Your task to perform on an android device: delete location history Image 0: 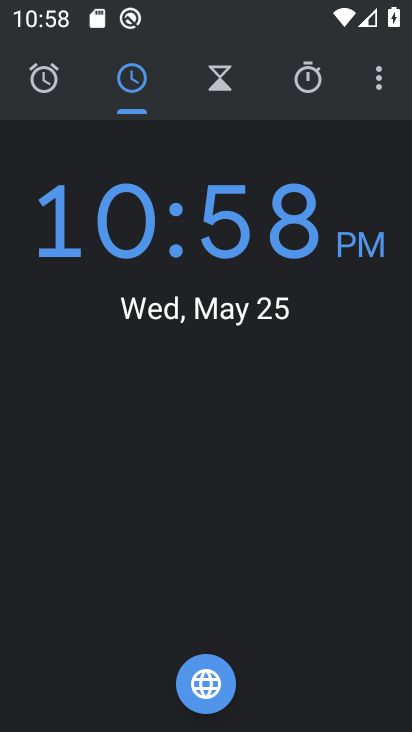
Step 0: press home button
Your task to perform on an android device: delete location history Image 1: 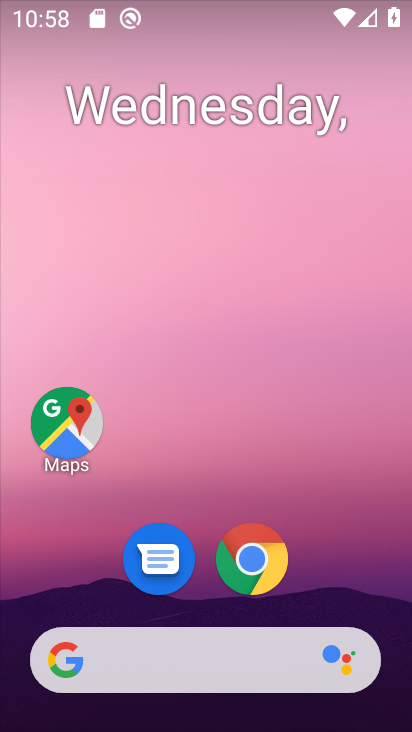
Step 1: drag from (269, 699) to (252, 50)
Your task to perform on an android device: delete location history Image 2: 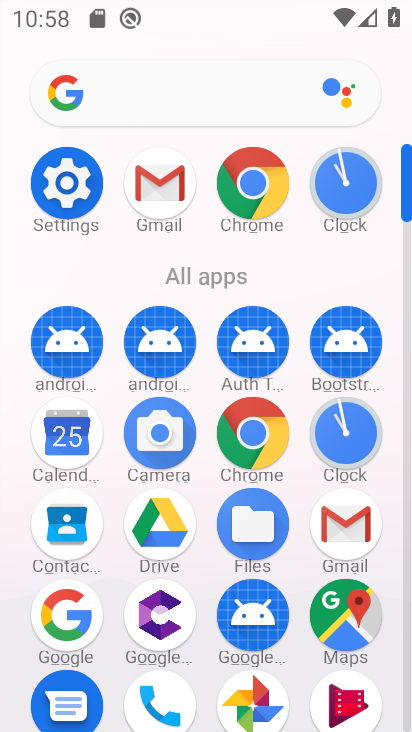
Step 2: click (75, 185)
Your task to perform on an android device: delete location history Image 3: 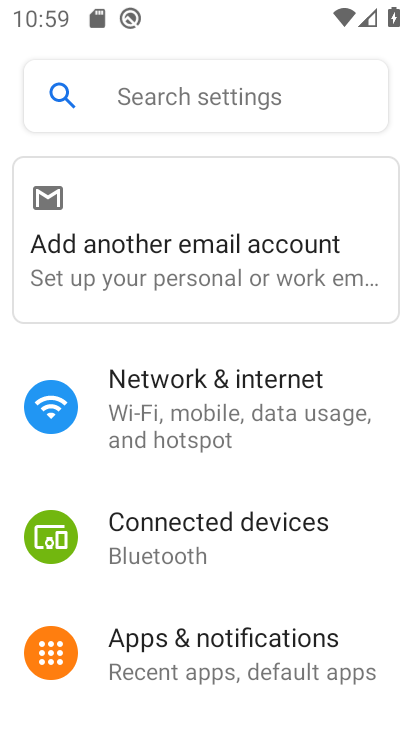
Step 3: click (182, 98)
Your task to perform on an android device: delete location history Image 4: 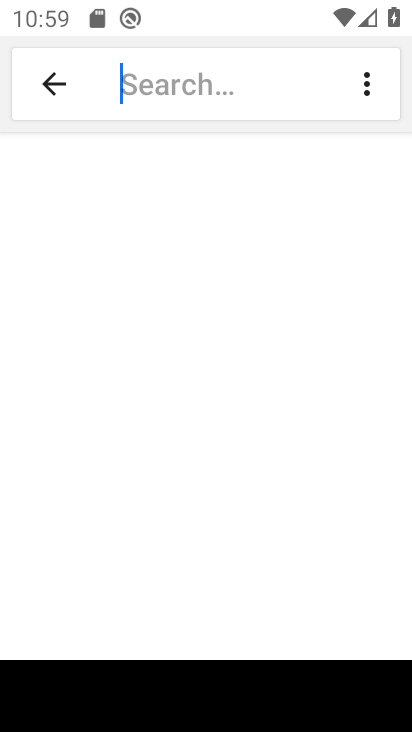
Step 4: drag from (371, 696) to (344, 542)
Your task to perform on an android device: delete location history Image 5: 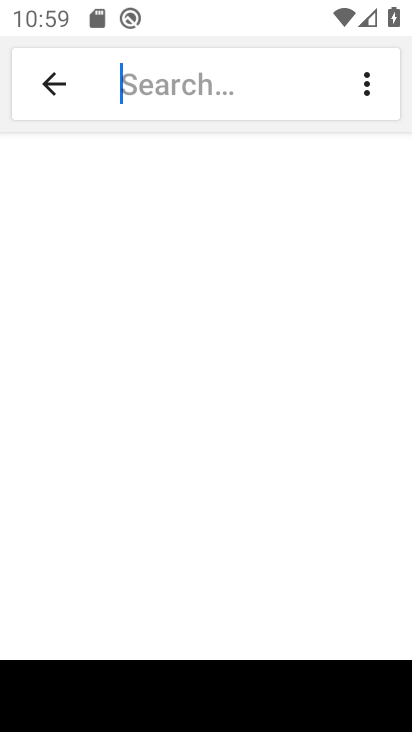
Step 5: drag from (380, 710) to (352, 553)
Your task to perform on an android device: delete location history Image 6: 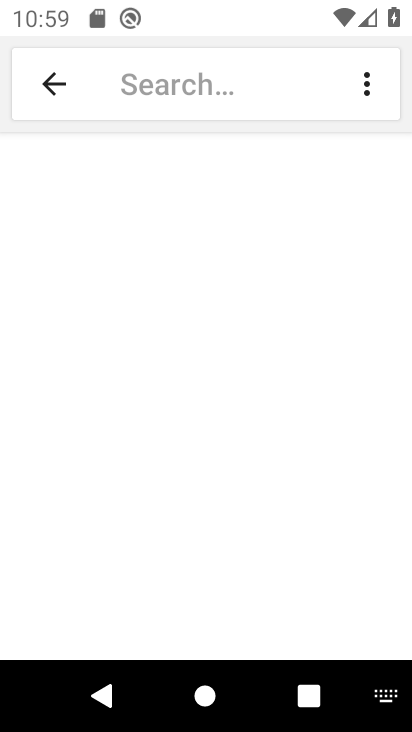
Step 6: click (383, 693)
Your task to perform on an android device: delete location history Image 7: 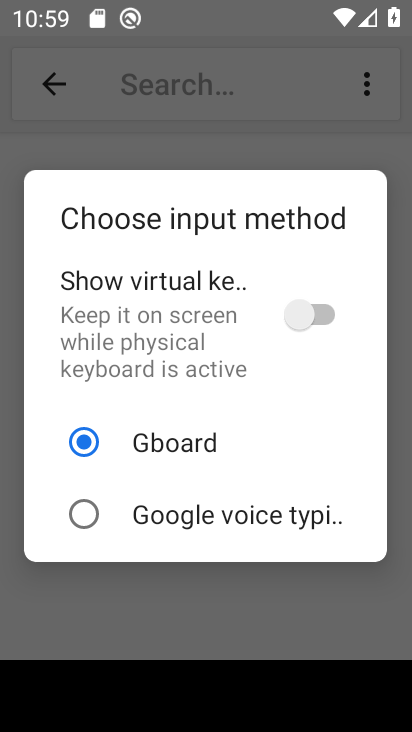
Step 7: click (329, 318)
Your task to perform on an android device: delete location history Image 8: 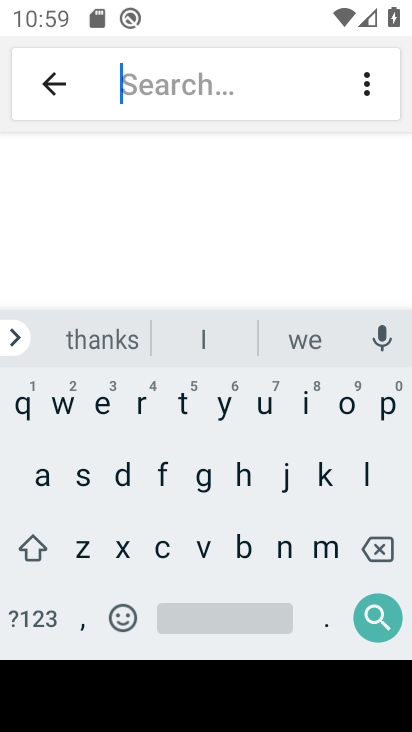
Step 8: click (377, 466)
Your task to perform on an android device: delete location history Image 9: 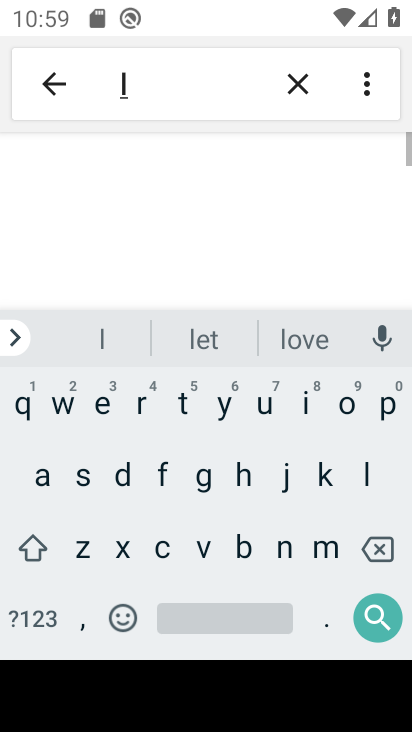
Step 9: click (341, 408)
Your task to perform on an android device: delete location history Image 10: 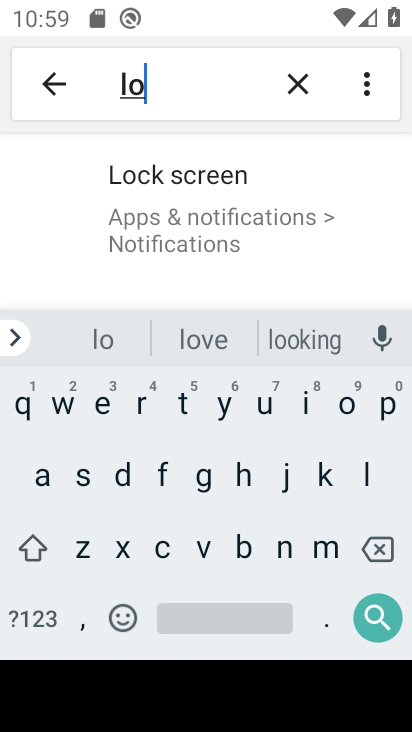
Step 10: press back button
Your task to perform on an android device: delete location history Image 11: 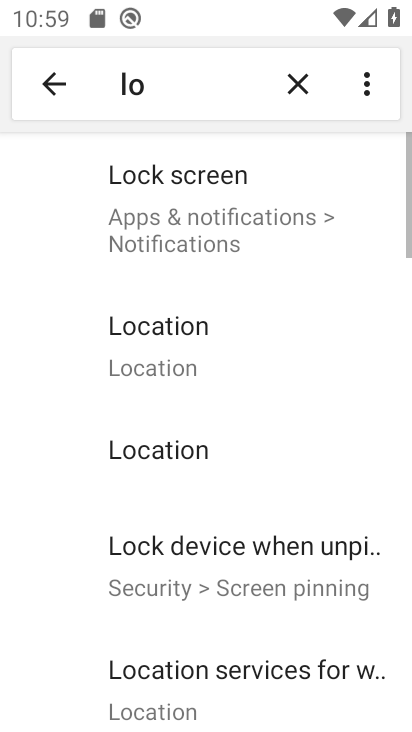
Step 11: click (177, 359)
Your task to perform on an android device: delete location history Image 12: 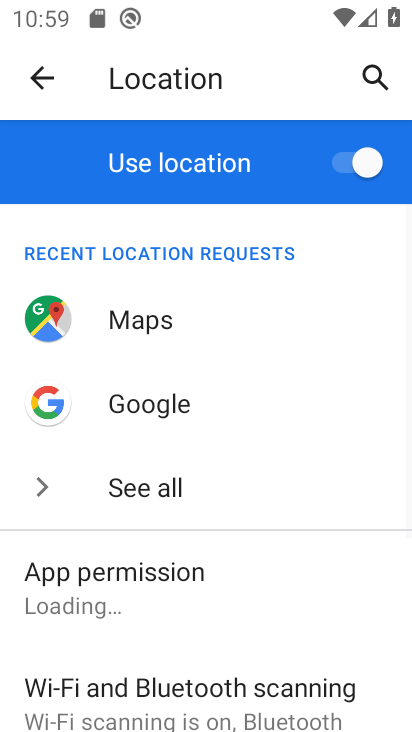
Step 12: drag from (48, 615) to (144, 311)
Your task to perform on an android device: delete location history Image 13: 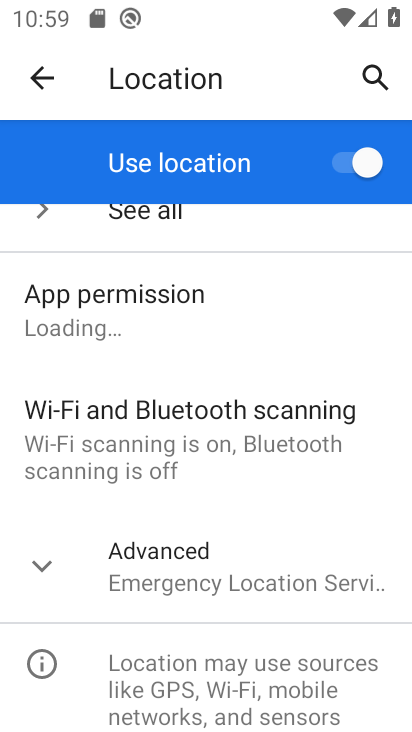
Step 13: click (59, 560)
Your task to perform on an android device: delete location history Image 14: 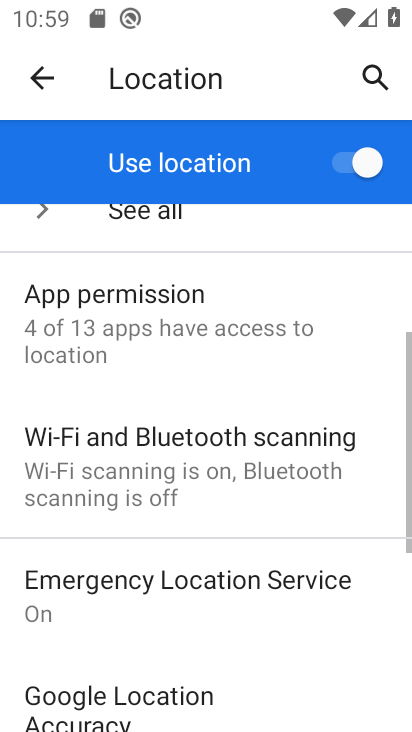
Step 14: drag from (165, 569) to (192, 349)
Your task to perform on an android device: delete location history Image 15: 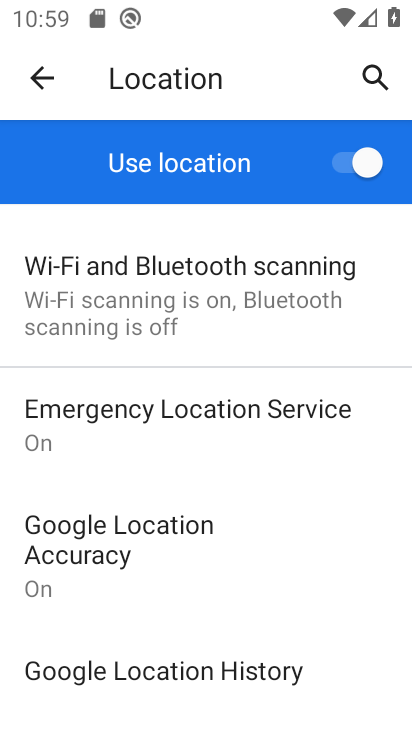
Step 15: click (178, 666)
Your task to perform on an android device: delete location history Image 16: 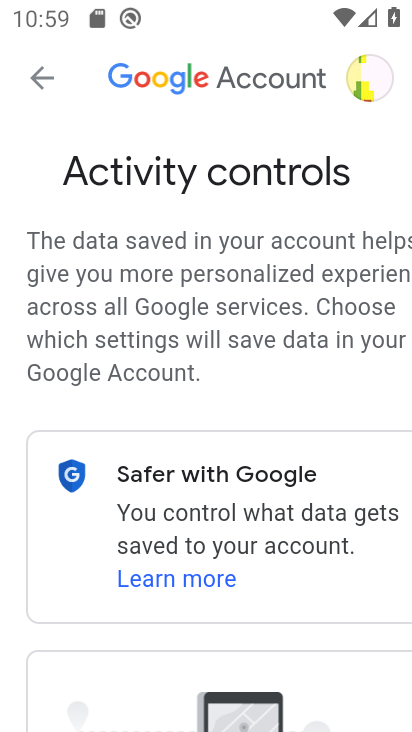
Step 16: drag from (203, 585) to (286, 240)
Your task to perform on an android device: delete location history Image 17: 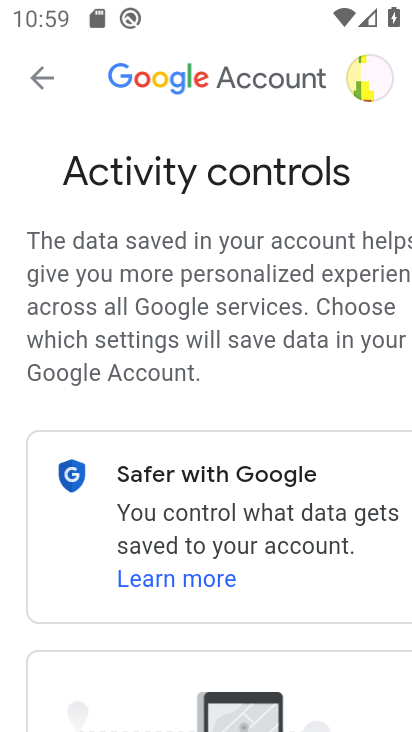
Step 17: drag from (279, 627) to (328, 241)
Your task to perform on an android device: delete location history Image 18: 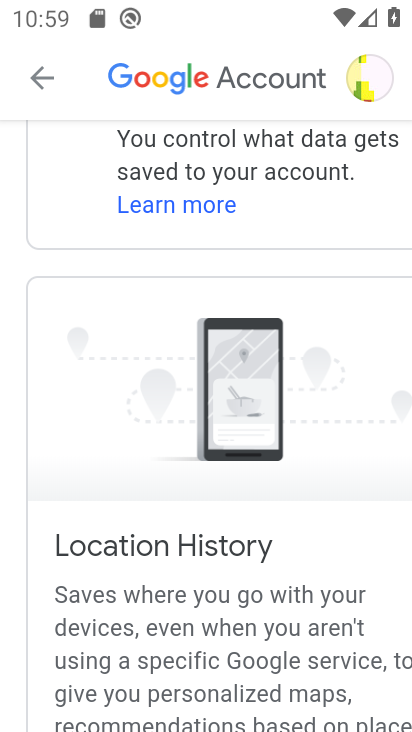
Step 18: drag from (318, 558) to (326, 195)
Your task to perform on an android device: delete location history Image 19: 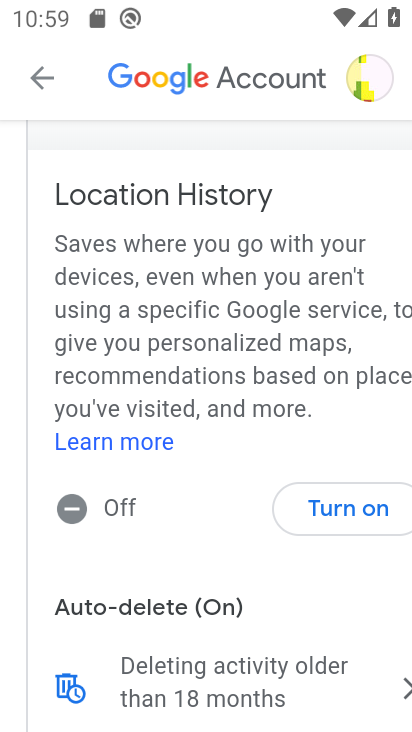
Step 19: drag from (331, 524) to (335, 329)
Your task to perform on an android device: delete location history Image 20: 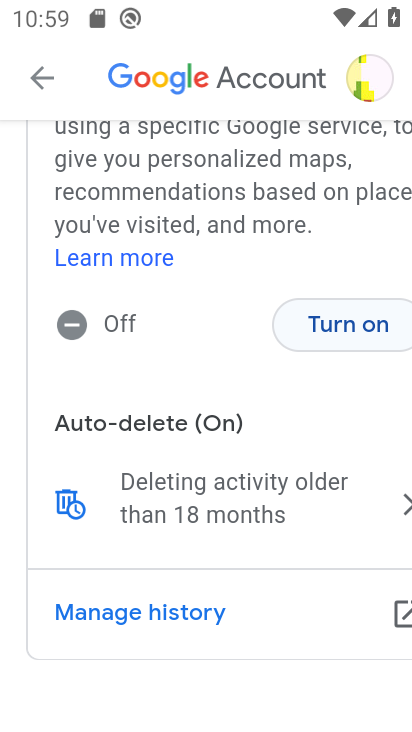
Step 20: click (215, 508)
Your task to perform on an android device: delete location history Image 21: 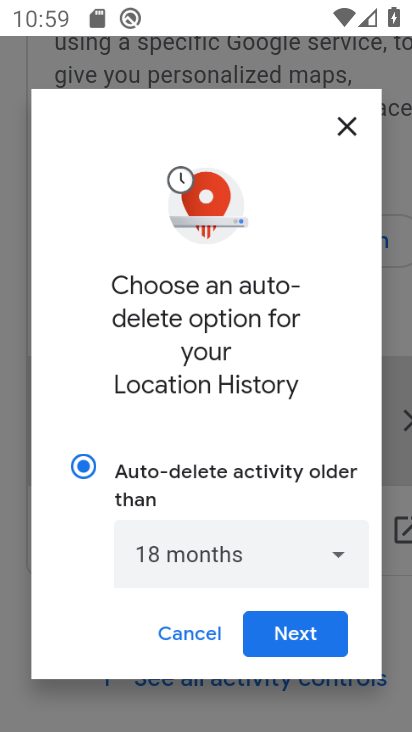
Step 21: task complete